Your task to perform on an android device: turn on data saver in the chrome app Image 0: 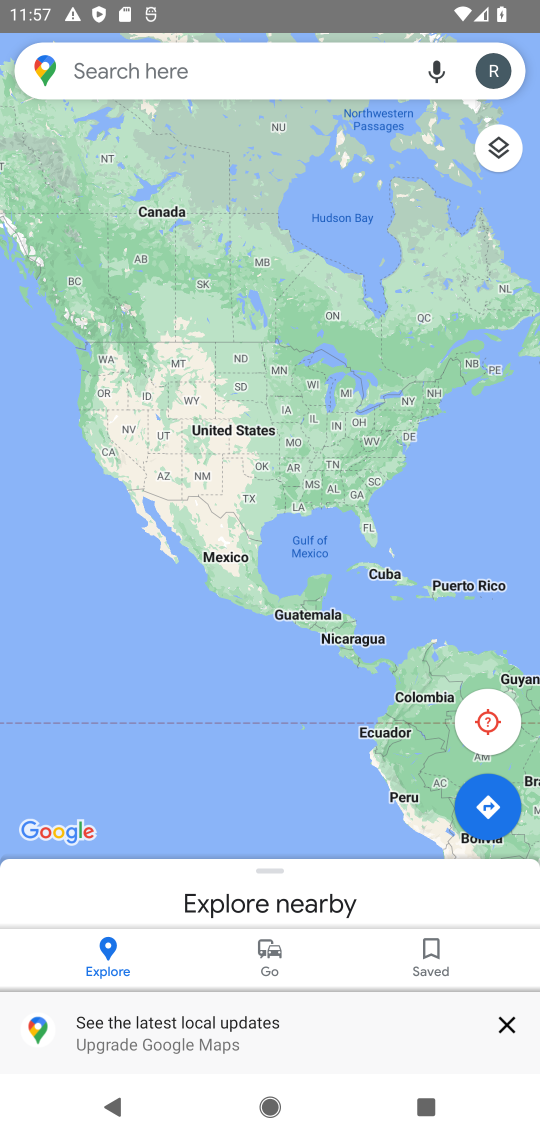
Step 0: press home button
Your task to perform on an android device: turn on data saver in the chrome app Image 1: 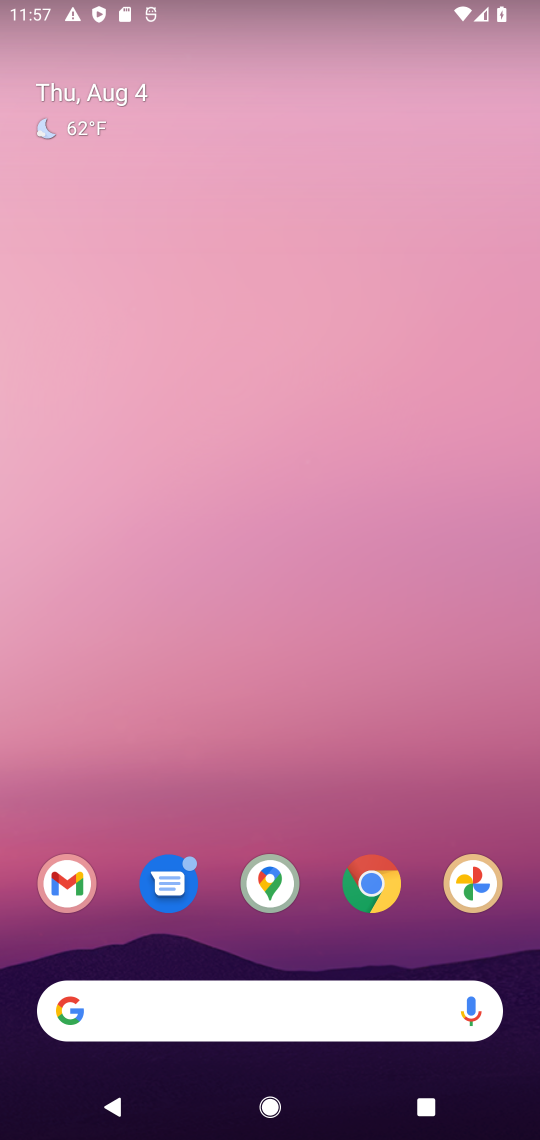
Step 1: drag from (273, 956) to (436, 100)
Your task to perform on an android device: turn on data saver in the chrome app Image 2: 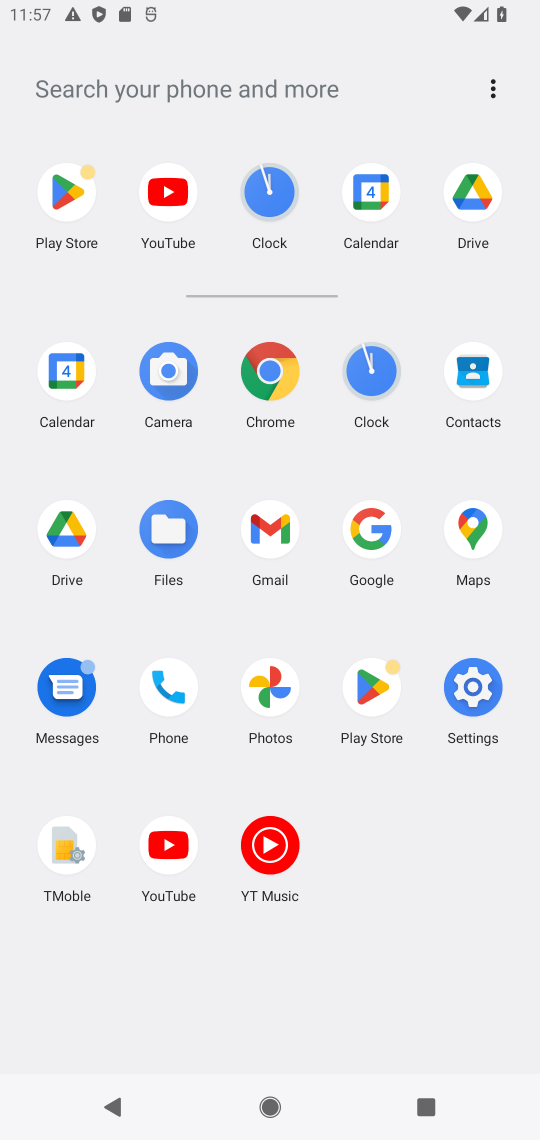
Step 2: click (270, 363)
Your task to perform on an android device: turn on data saver in the chrome app Image 3: 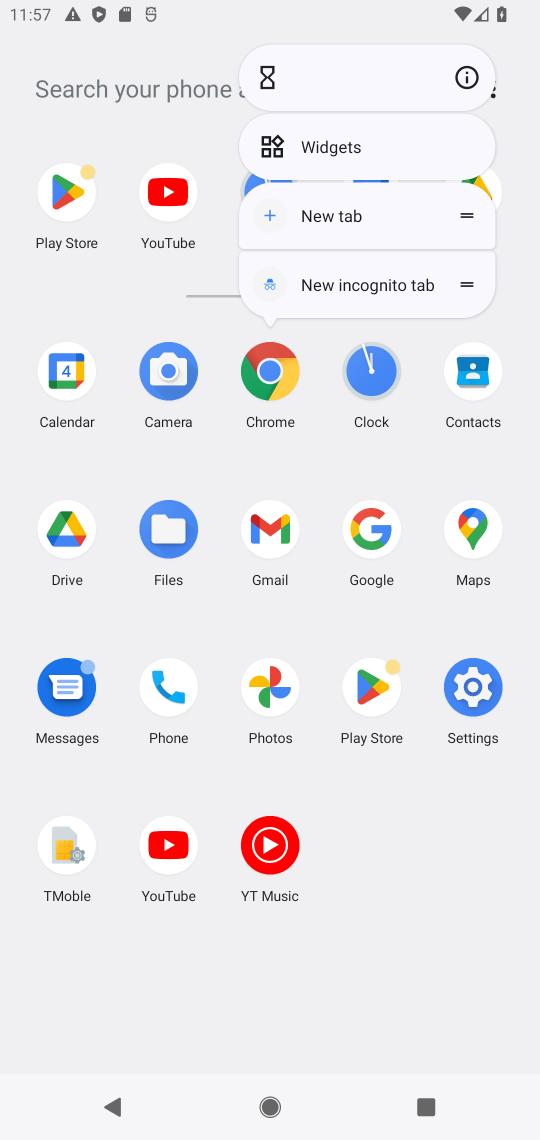
Step 3: click (462, 69)
Your task to perform on an android device: turn on data saver in the chrome app Image 4: 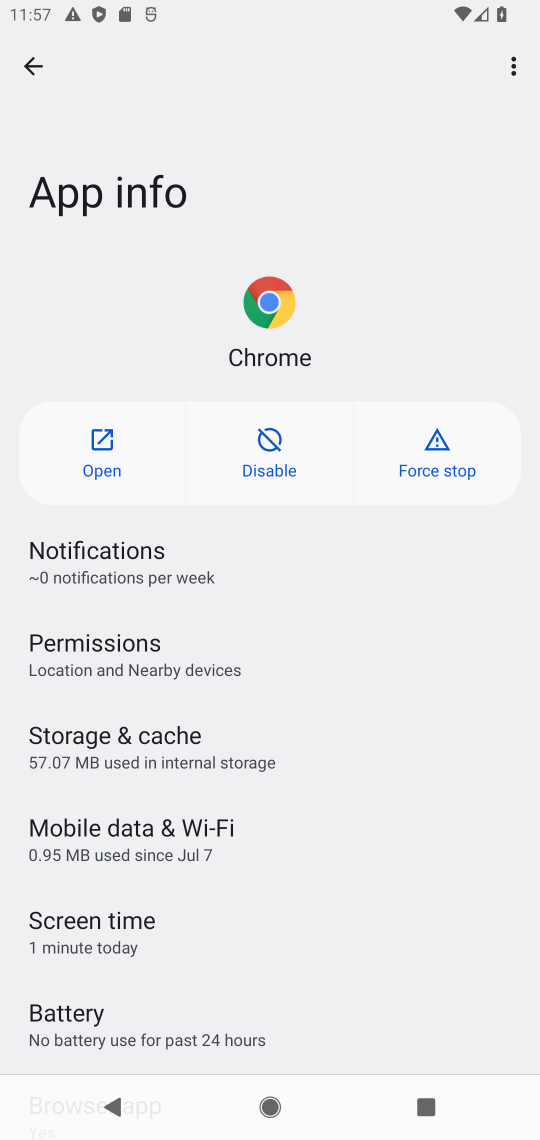
Step 4: click (116, 452)
Your task to perform on an android device: turn on data saver in the chrome app Image 5: 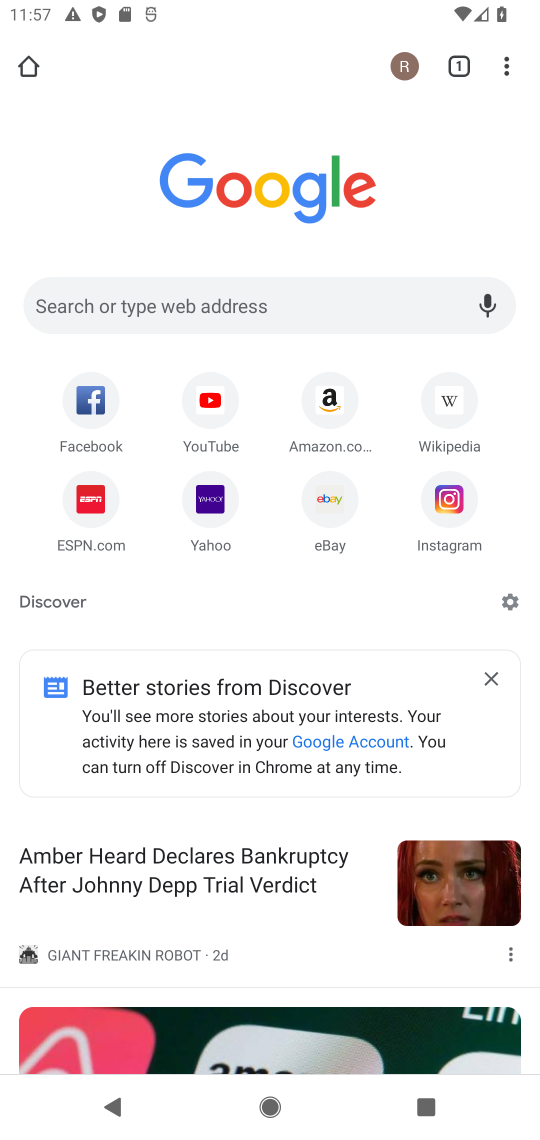
Step 5: drag from (505, 71) to (372, 554)
Your task to perform on an android device: turn on data saver in the chrome app Image 6: 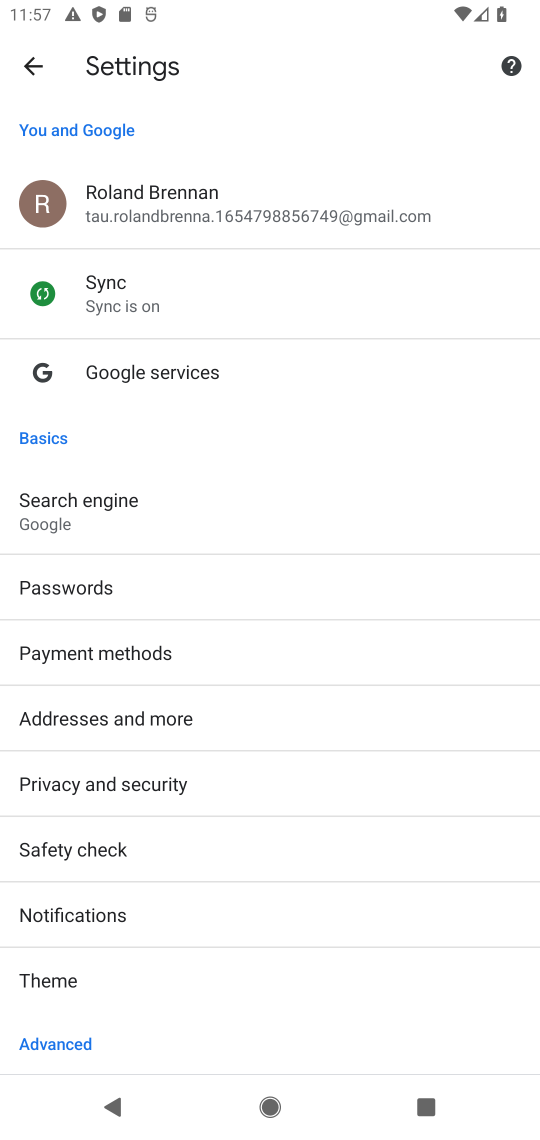
Step 6: drag from (241, 944) to (207, 448)
Your task to perform on an android device: turn on data saver in the chrome app Image 7: 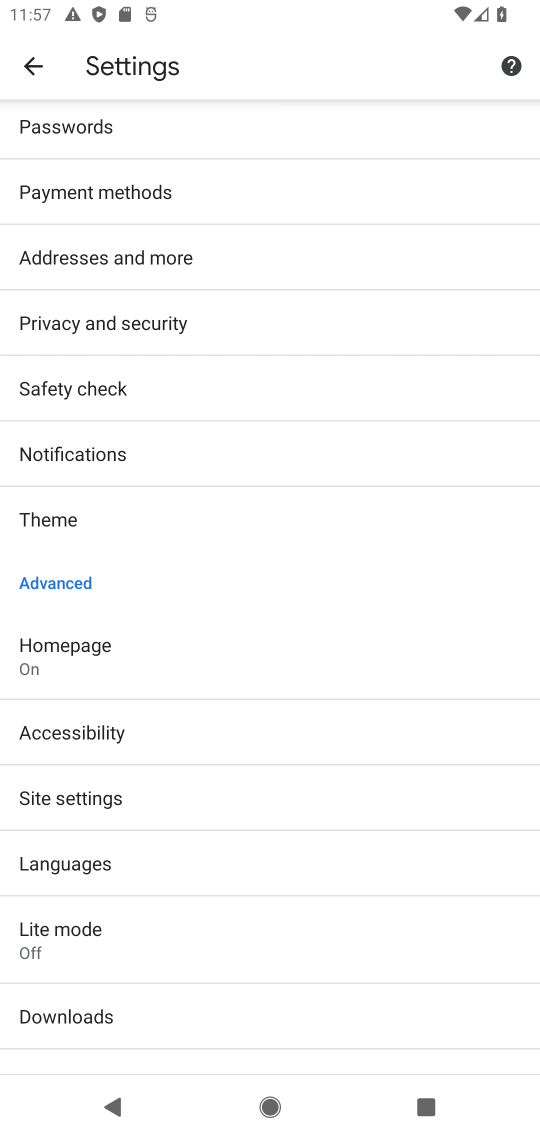
Step 7: click (180, 955)
Your task to perform on an android device: turn on data saver in the chrome app Image 8: 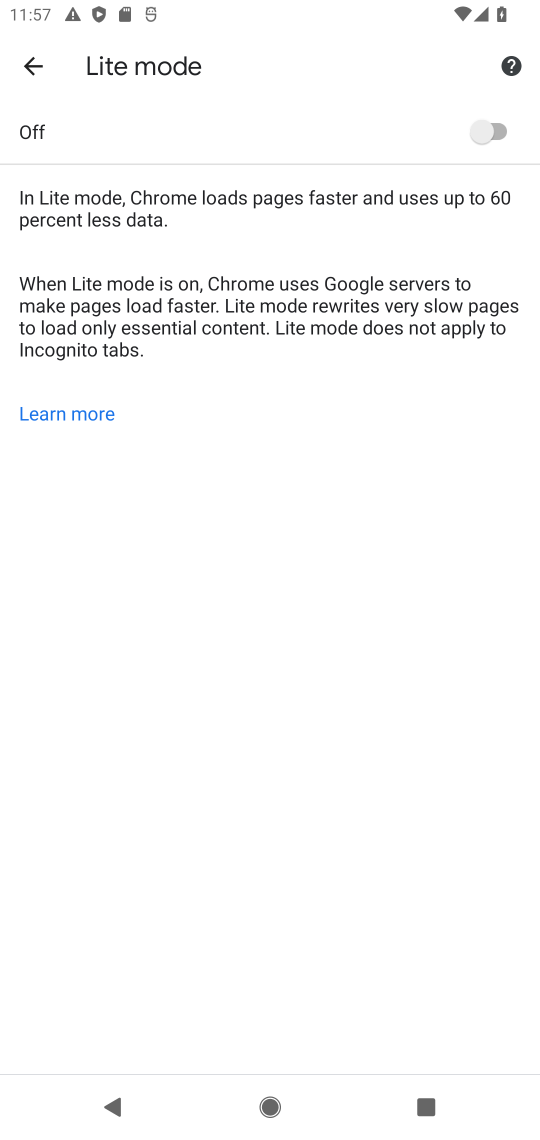
Step 8: click (464, 132)
Your task to perform on an android device: turn on data saver in the chrome app Image 9: 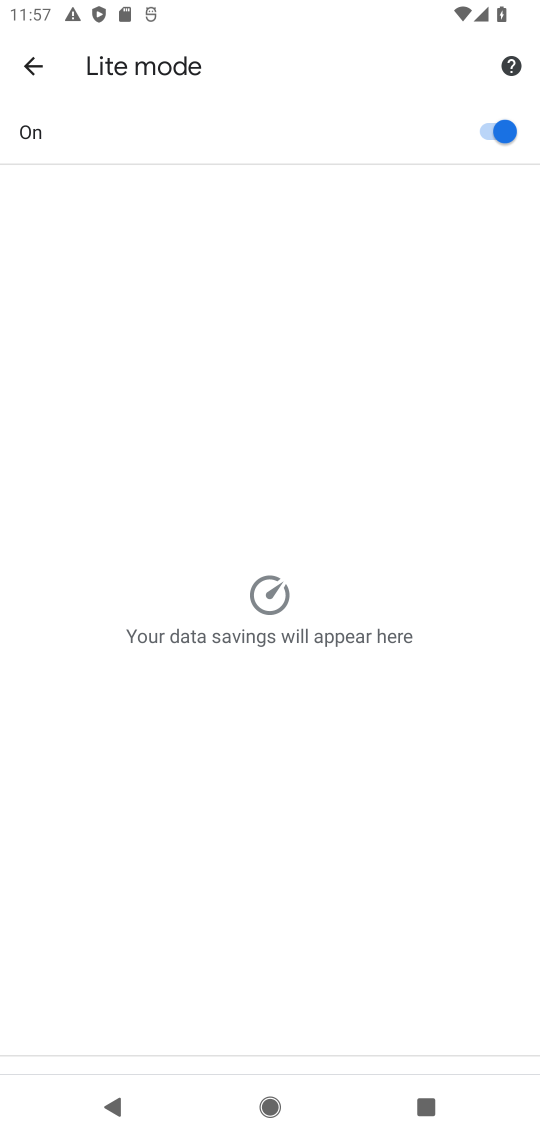
Step 9: task complete